Your task to perform on an android device: turn off notifications in google photos Image 0: 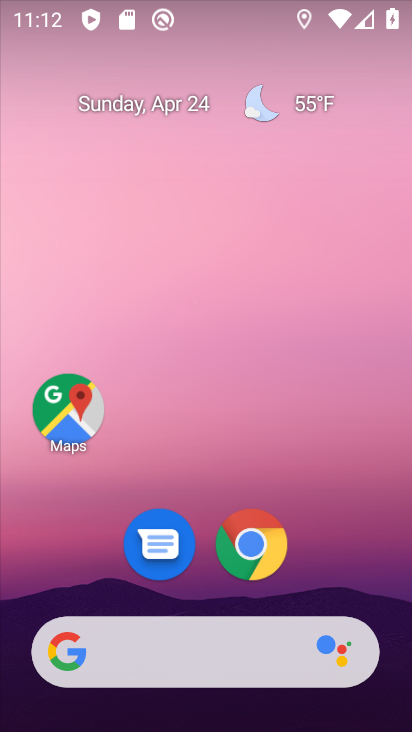
Step 0: drag from (332, 571) to (286, 81)
Your task to perform on an android device: turn off notifications in google photos Image 1: 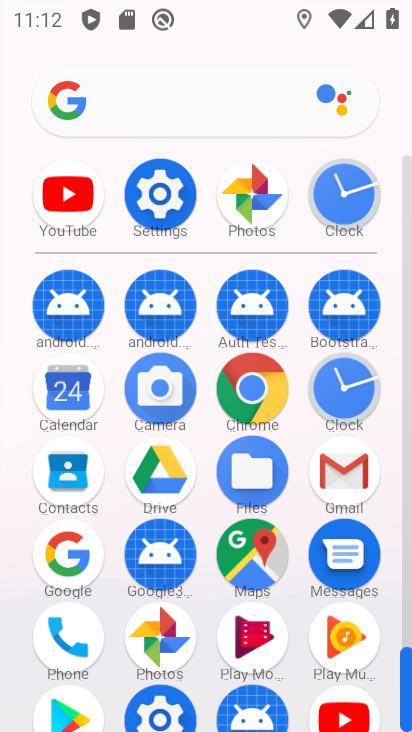
Step 1: click (256, 194)
Your task to perform on an android device: turn off notifications in google photos Image 2: 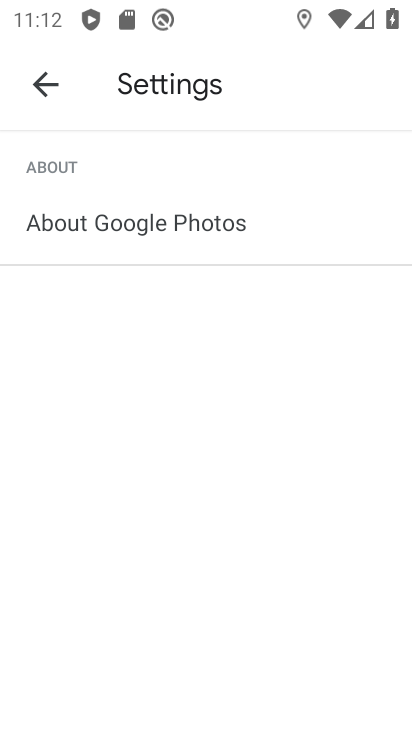
Step 2: click (47, 86)
Your task to perform on an android device: turn off notifications in google photos Image 3: 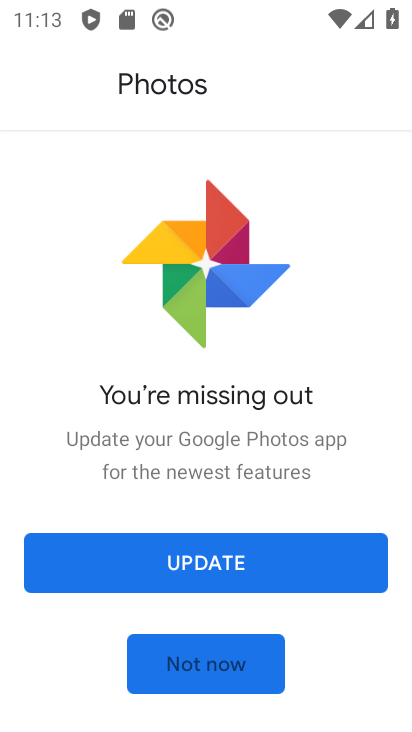
Step 3: click (239, 672)
Your task to perform on an android device: turn off notifications in google photos Image 4: 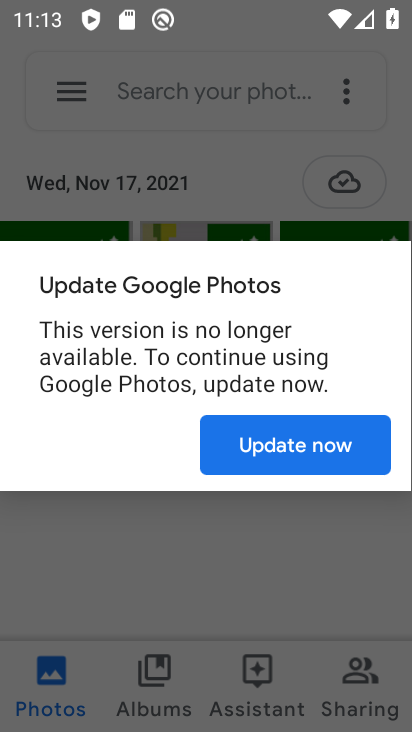
Step 4: click (280, 451)
Your task to perform on an android device: turn off notifications in google photos Image 5: 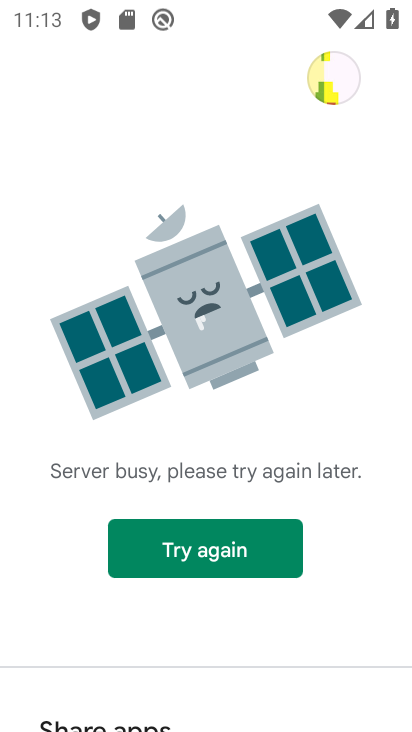
Step 5: click (195, 554)
Your task to perform on an android device: turn off notifications in google photos Image 6: 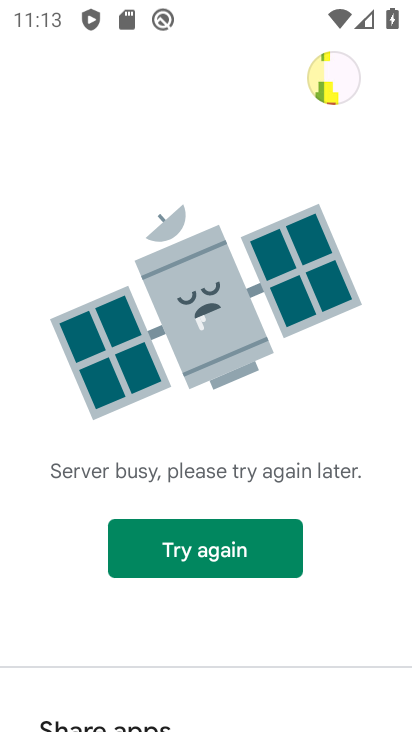
Step 6: press back button
Your task to perform on an android device: turn off notifications in google photos Image 7: 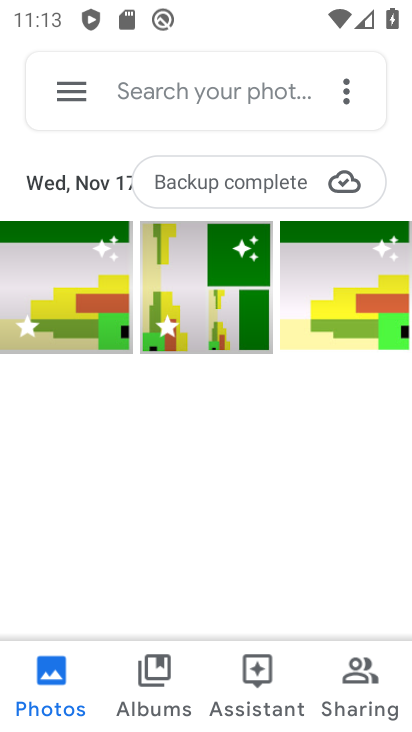
Step 7: click (73, 91)
Your task to perform on an android device: turn off notifications in google photos Image 8: 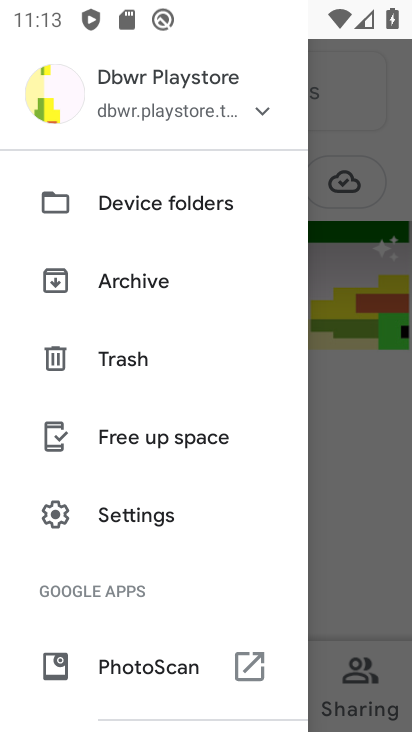
Step 8: click (136, 514)
Your task to perform on an android device: turn off notifications in google photos Image 9: 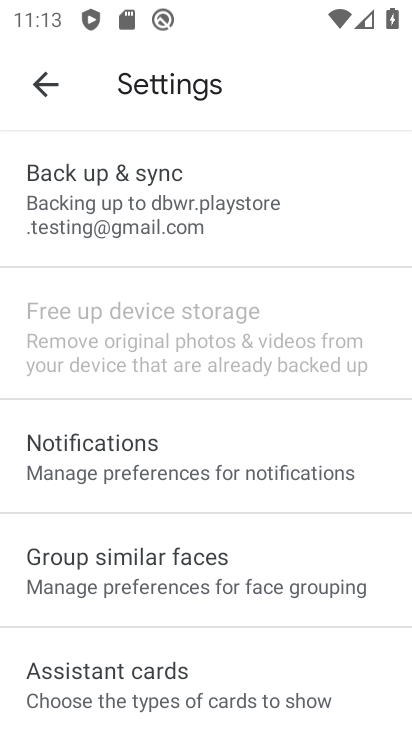
Step 9: click (141, 466)
Your task to perform on an android device: turn off notifications in google photos Image 10: 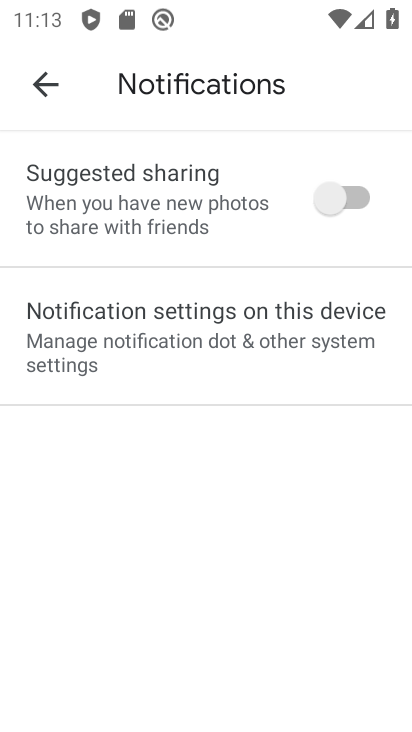
Step 10: click (186, 379)
Your task to perform on an android device: turn off notifications in google photos Image 11: 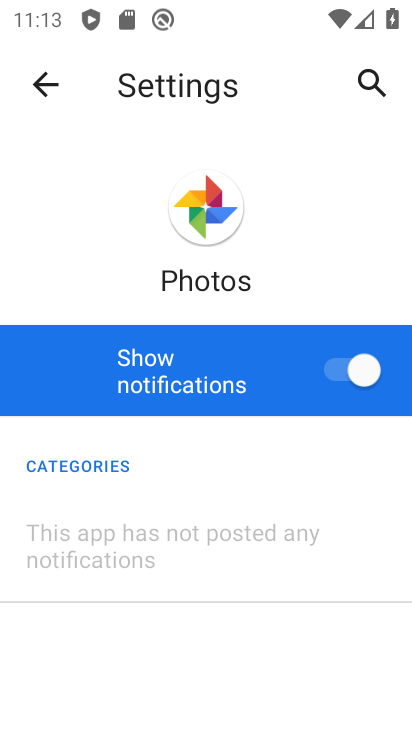
Step 11: click (357, 376)
Your task to perform on an android device: turn off notifications in google photos Image 12: 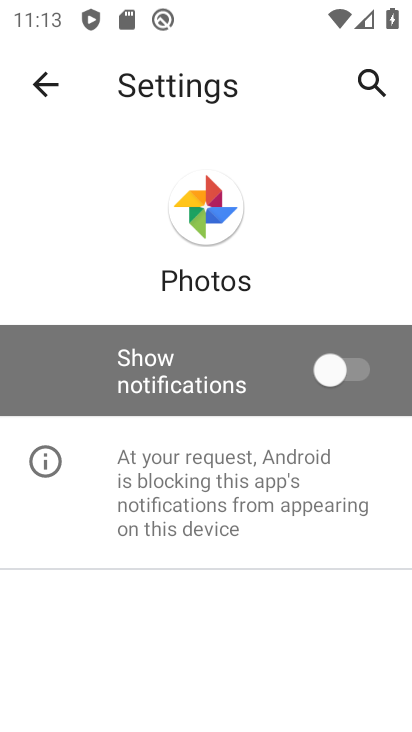
Step 12: task complete